Your task to perform on an android device: Open Maps and search for coffee Image 0: 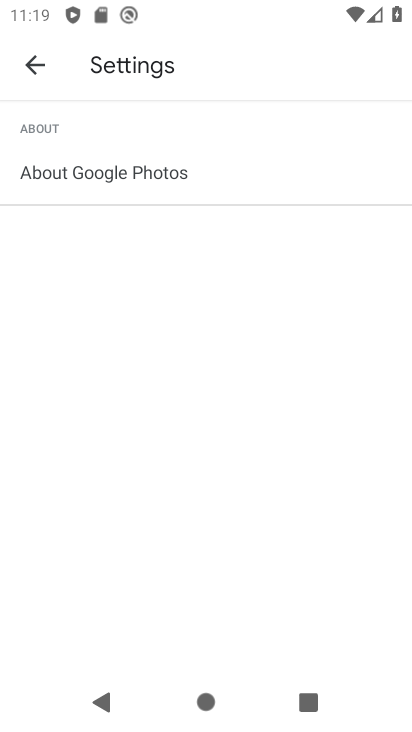
Step 0: press home button
Your task to perform on an android device: Open Maps and search for coffee Image 1: 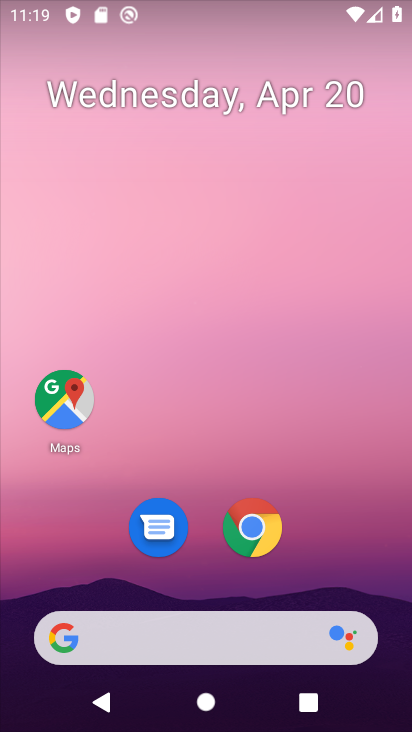
Step 1: drag from (335, 313) to (329, 46)
Your task to perform on an android device: Open Maps and search for coffee Image 2: 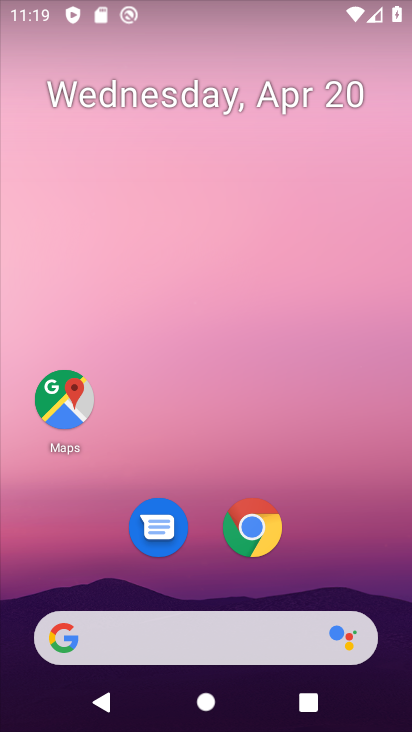
Step 2: drag from (338, 518) to (327, 115)
Your task to perform on an android device: Open Maps and search for coffee Image 3: 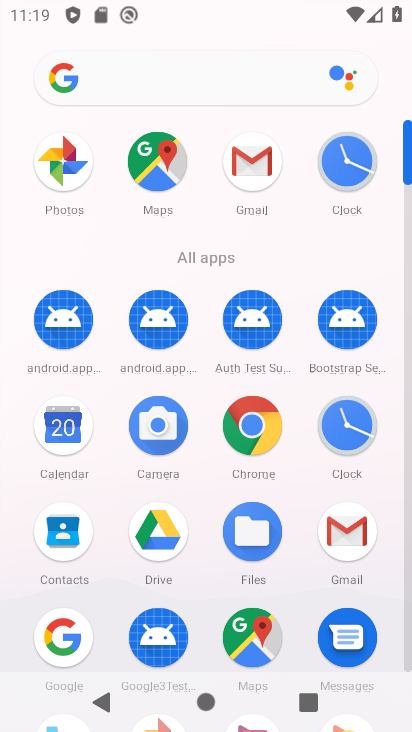
Step 3: click (251, 625)
Your task to perform on an android device: Open Maps and search for coffee Image 4: 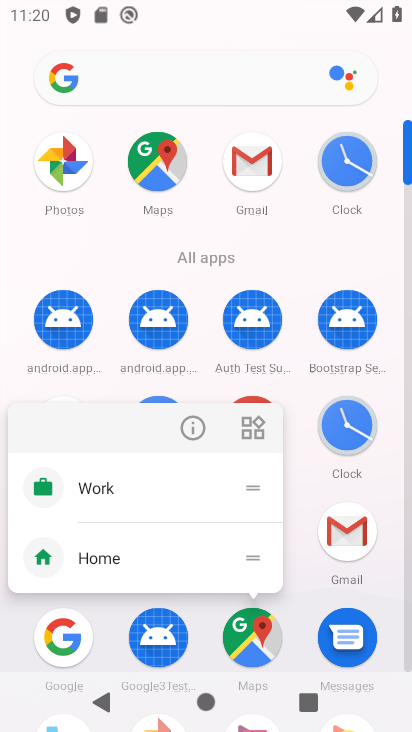
Step 4: click (249, 635)
Your task to perform on an android device: Open Maps and search for coffee Image 5: 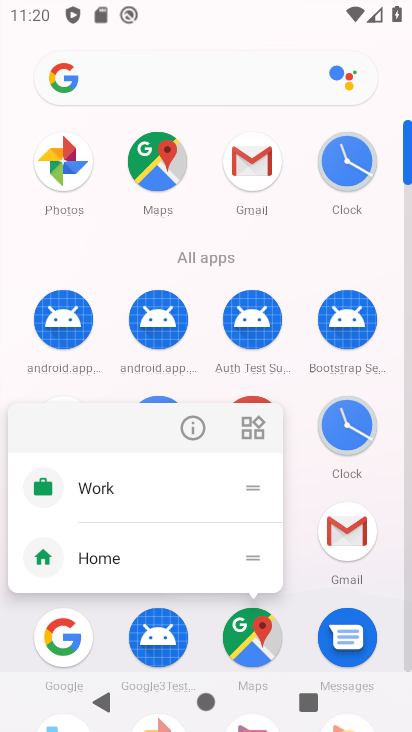
Step 5: click (244, 645)
Your task to perform on an android device: Open Maps and search for coffee Image 6: 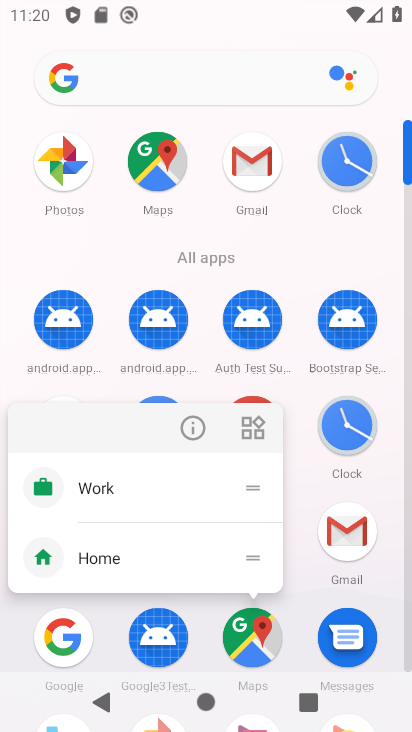
Step 6: click (246, 645)
Your task to perform on an android device: Open Maps and search for coffee Image 7: 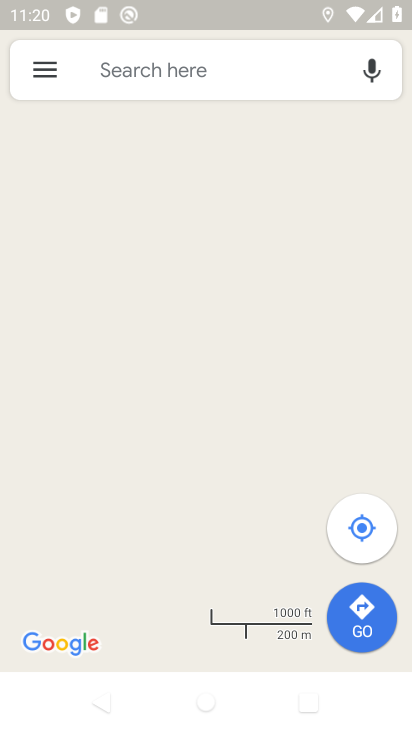
Step 7: click (242, 79)
Your task to perform on an android device: Open Maps and search for coffee Image 8: 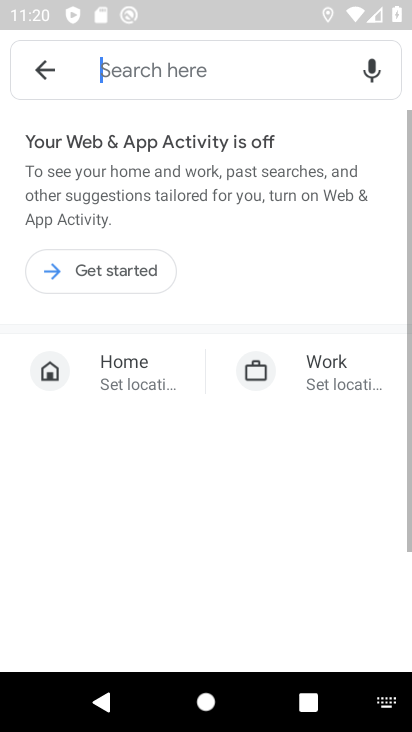
Step 8: type "coffee"
Your task to perform on an android device: Open Maps and search for coffee Image 9: 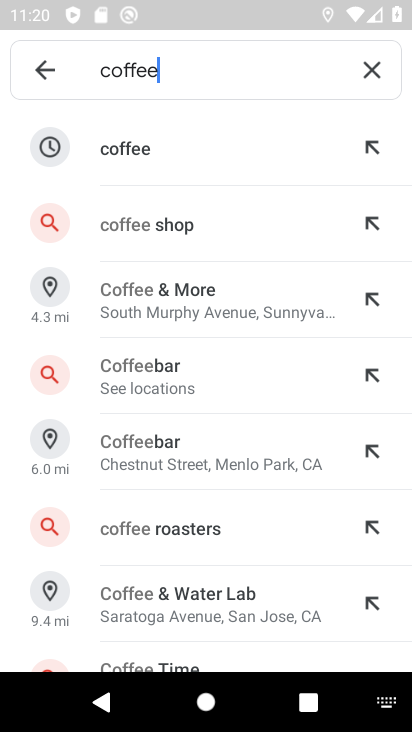
Step 9: click (139, 154)
Your task to perform on an android device: Open Maps and search for coffee Image 10: 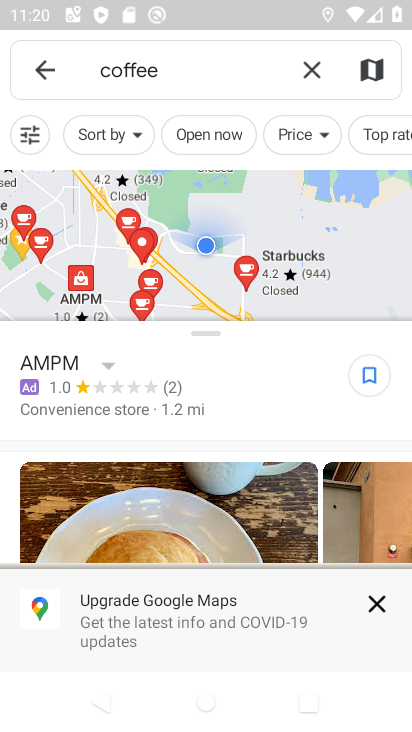
Step 10: task complete